Your task to perform on an android device: Open maps Image 0: 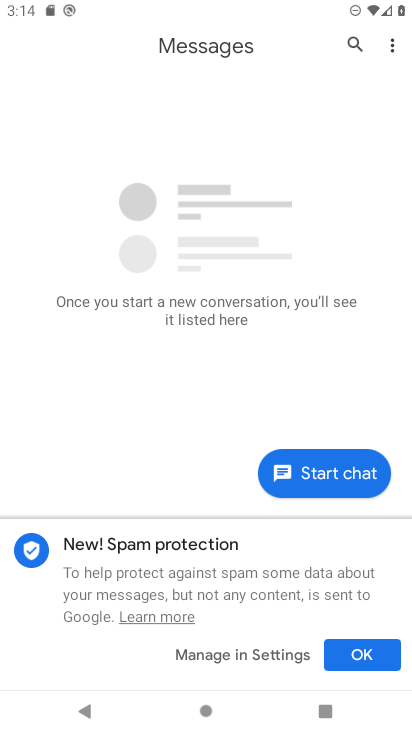
Step 0: press home button
Your task to perform on an android device: Open maps Image 1: 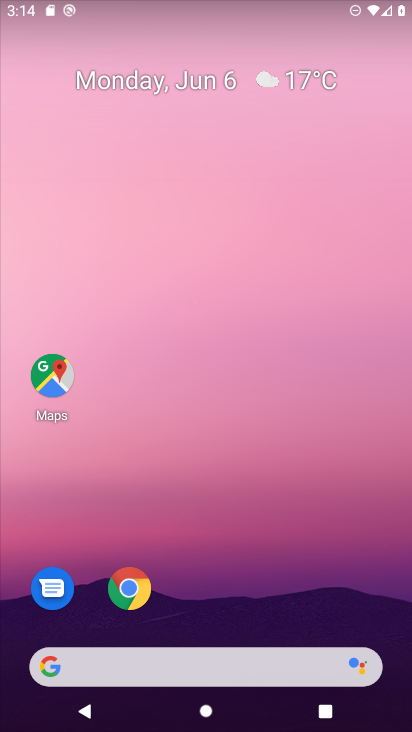
Step 1: click (44, 411)
Your task to perform on an android device: Open maps Image 2: 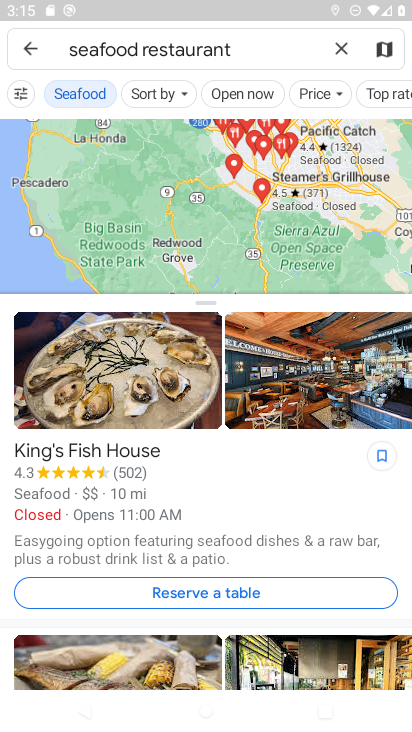
Step 2: task complete